Your task to perform on an android device: turn off translation in the chrome app Image 0: 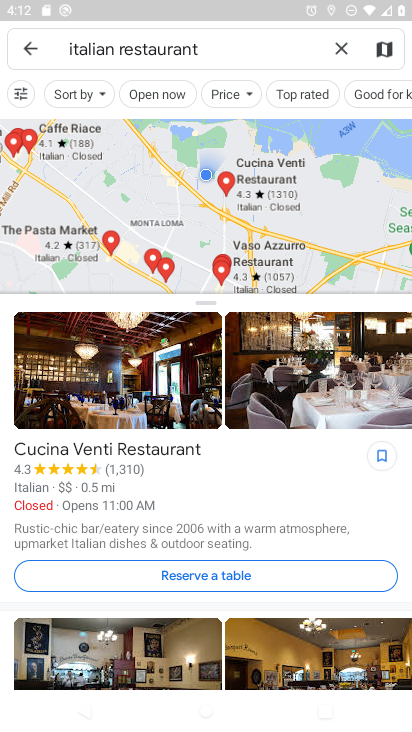
Step 0: press home button
Your task to perform on an android device: turn off translation in the chrome app Image 1: 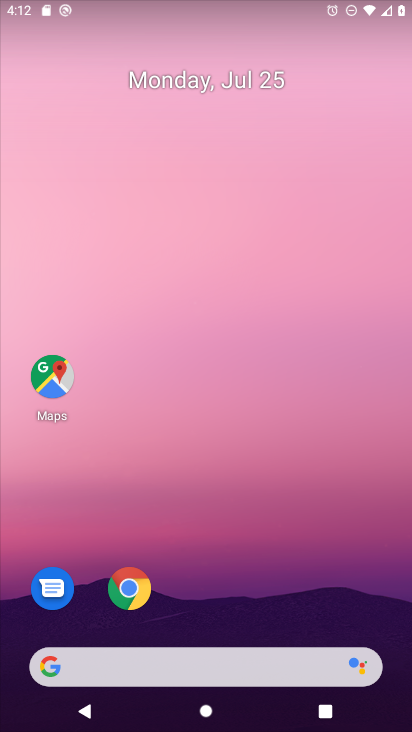
Step 1: drag from (232, 696) to (249, 128)
Your task to perform on an android device: turn off translation in the chrome app Image 2: 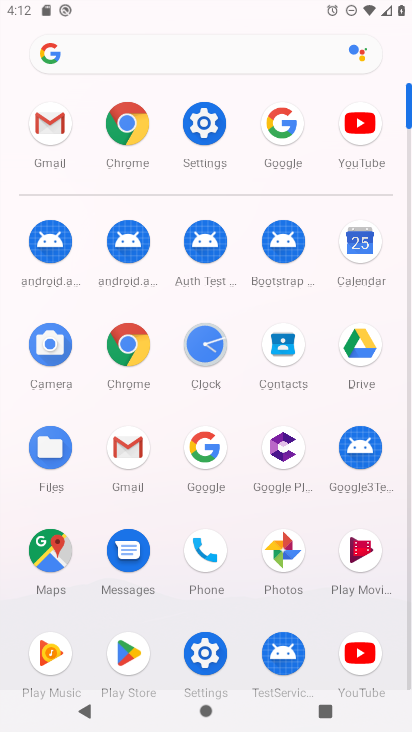
Step 2: click (133, 342)
Your task to perform on an android device: turn off translation in the chrome app Image 3: 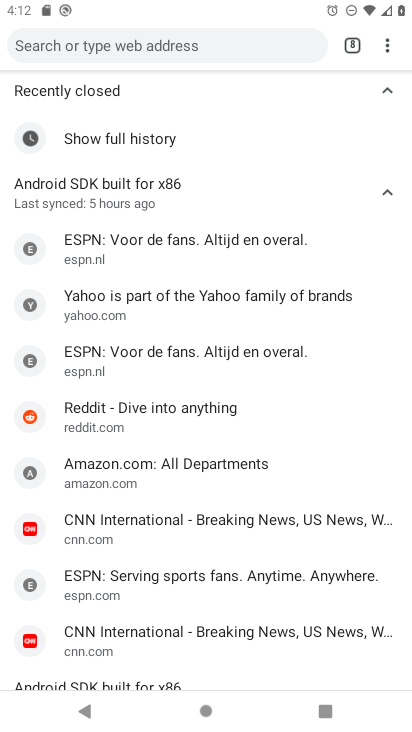
Step 3: click (389, 45)
Your task to perform on an android device: turn off translation in the chrome app Image 4: 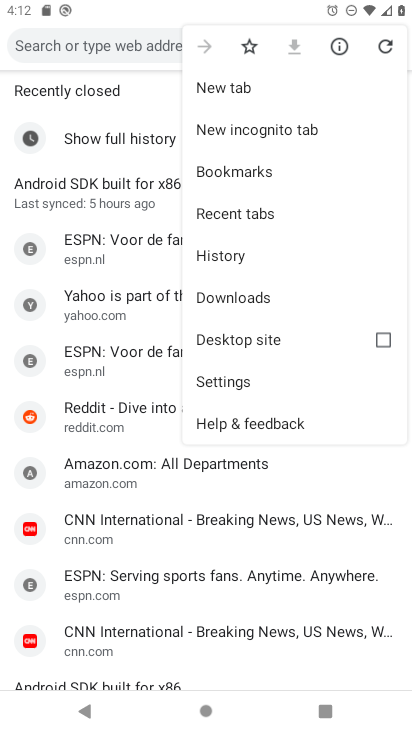
Step 4: click (227, 379)
Your task to perform on an android device: turn off translation in the chrome app Image 5: 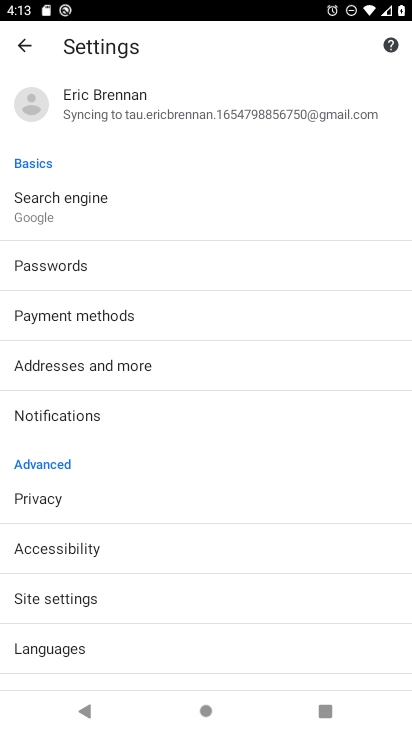
Step 5: drag from (105, 645) to (118, 346)
Your task to perform on an android device: turn off translation in the chrome app Image 6: 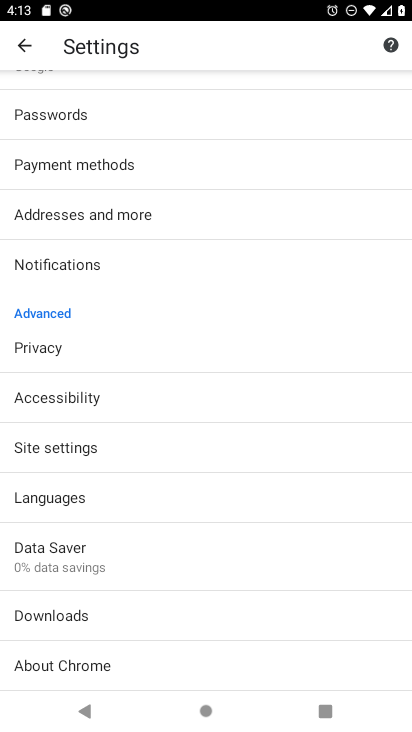
Step 6: click (58, 495)
Your task to perform on an android device: turn off translation in the chrome app Image 7: 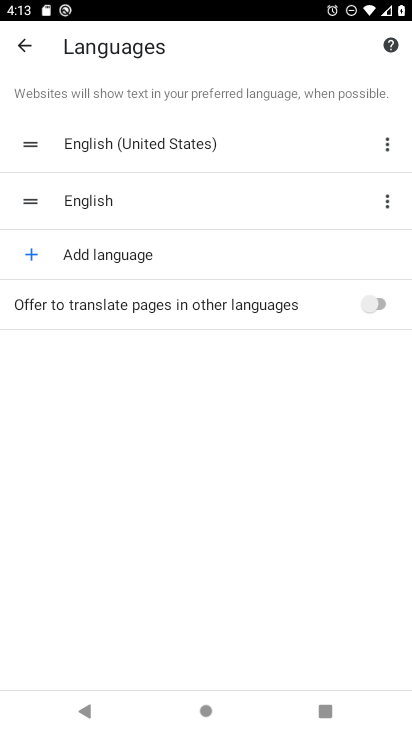
Step 7: task complete